Your task to perform on an android device: Search for seafood restaurants on Google Maps Image 0: 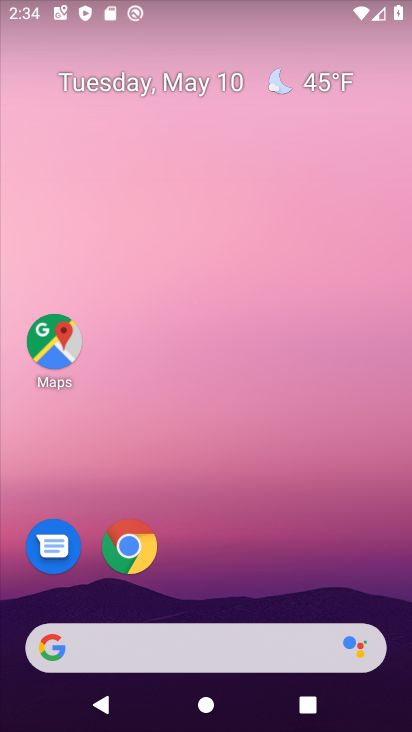
Step 0: drag from (291, 559) to (240, 71)
Your task to perform on an android device: Search for seafood restaurants on Google Maps Image 1: 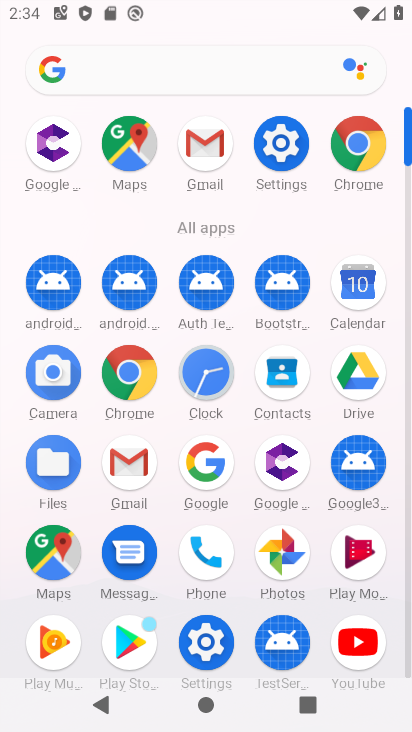
Step 1: drag from (9, 530) to (6, 253)
Your task to perform on an android device: Search for seafood restaurants on Google Maps Image 2: 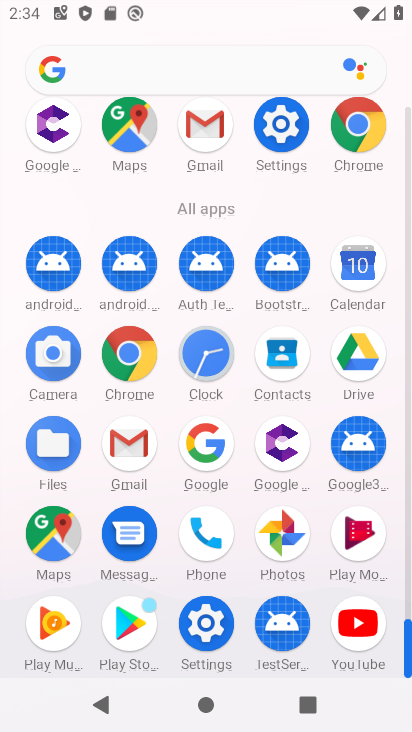
Step 2: click (50, 530)
Your task to perform on an android device: Search for seafood restaurants on Google Maps Image 3: 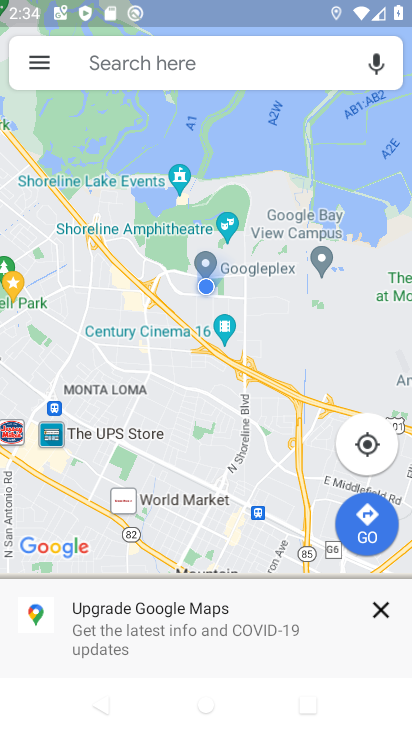
Step 3: click (260, 65)
Your task to perform on an android device: Search for seafood restaurants on Google Maps Image 4: 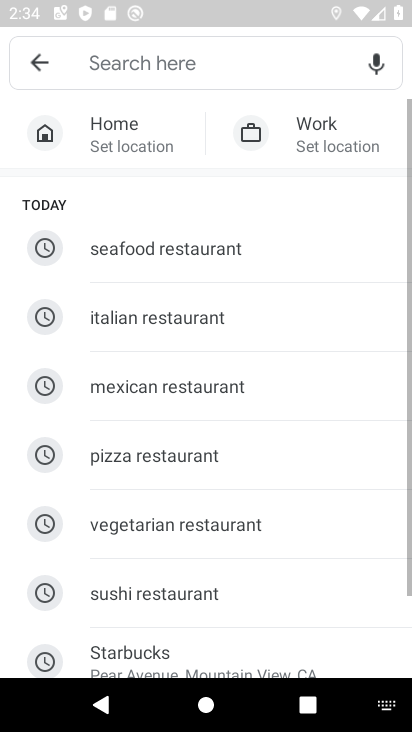
Step 4: click (236, 264)
Your task to perform on an android device: Search for seafood restaurants on Google Maps Image 5: 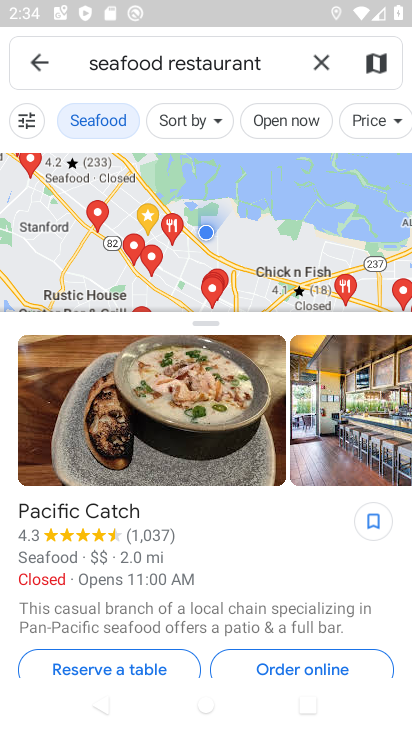
Step 5: task complete